Your task to perform on an android device: turn off picture-in-picture Image 0: 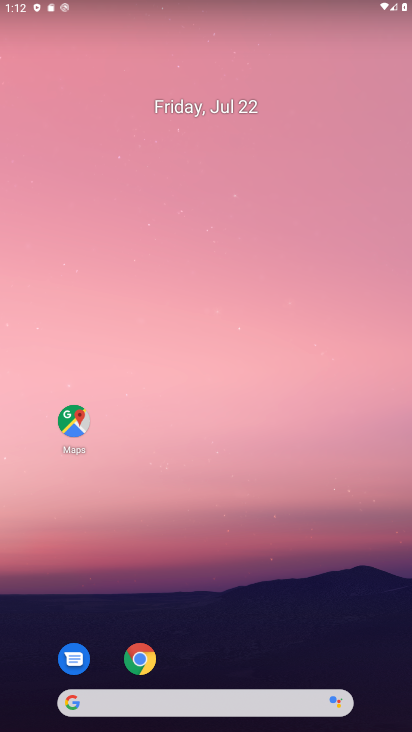
Step 0: click (141, 654)
Your task to perform on an android device: turn off picture-in-picture Image 1: 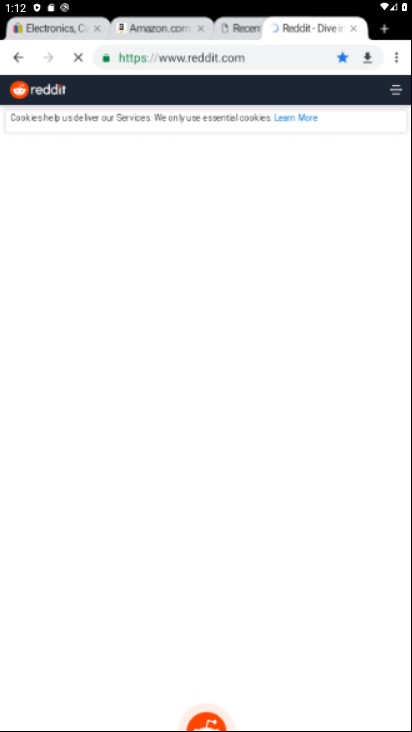
Step 1: task complete